Your task to perform on an android device: toggle wifi Image 0: 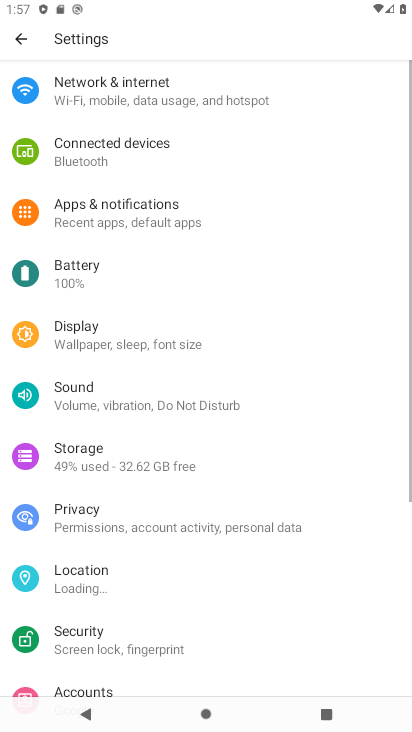
Step 0: press home button
Your task to perform on an android device: toggle wifi Image 1: 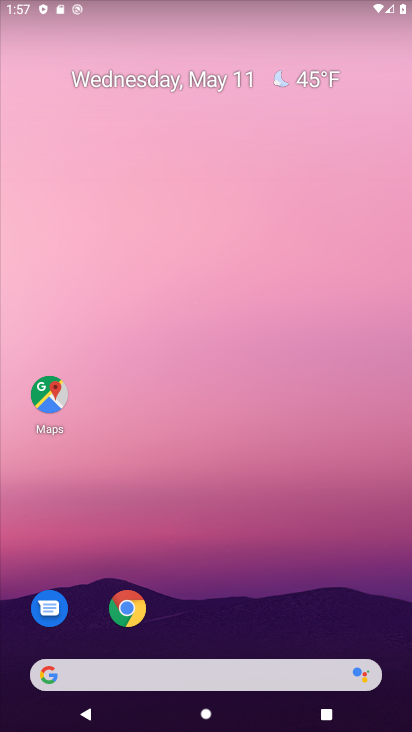
Step 1: drag from (230, 583) to (267, 104)
Your task to perform on an android device: toggle wifi Image 2: 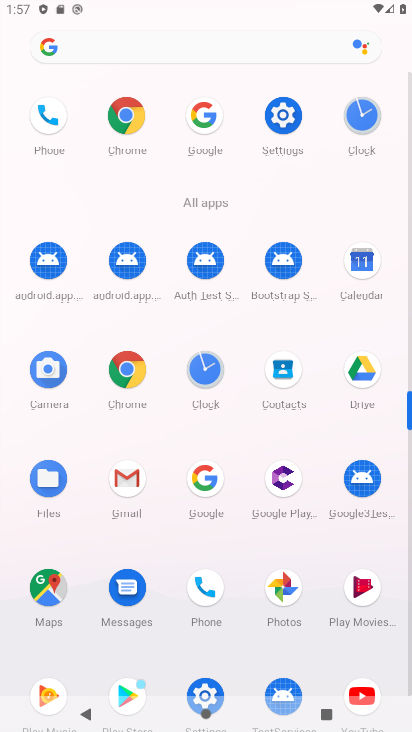
Step 2: click (284, 115)
Your task to perform on an android device: toggle wifi Image 3: 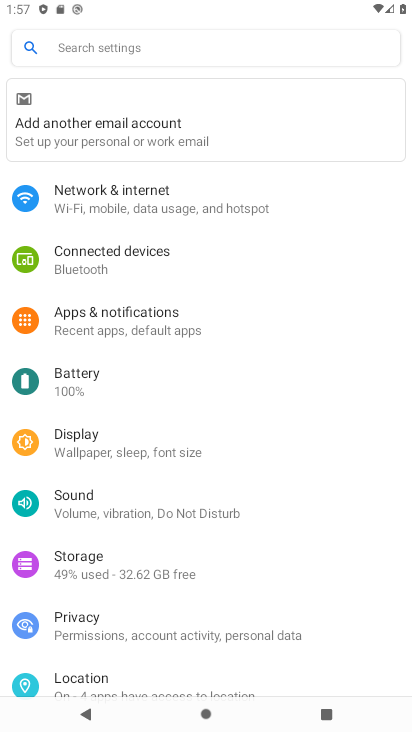
Step 3: click (116, 209)
Your task to perform on an android device: toggle wifi Image 4: 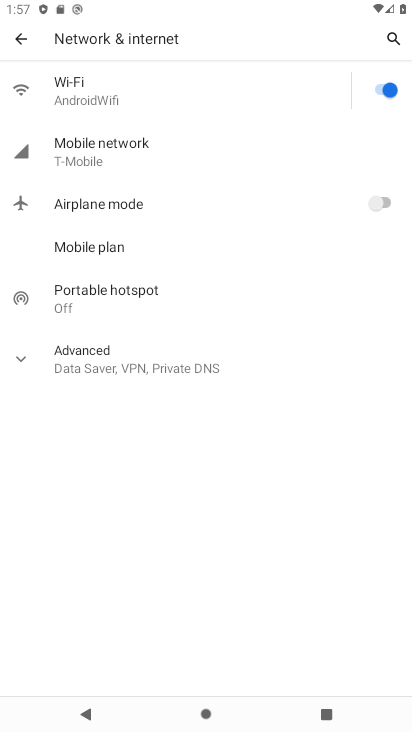
Step 4: click (388, 93)
Your task to perform on an android device: toggle wifi Image 5: 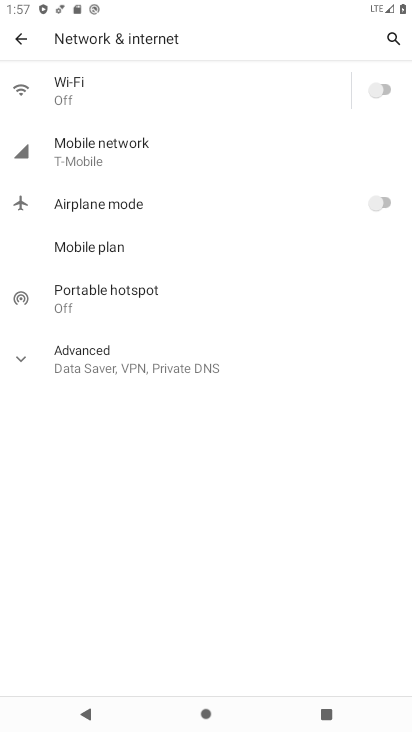
Step 5: task complete